Your task to perform on an android device: Go to privacy settings Image 0: 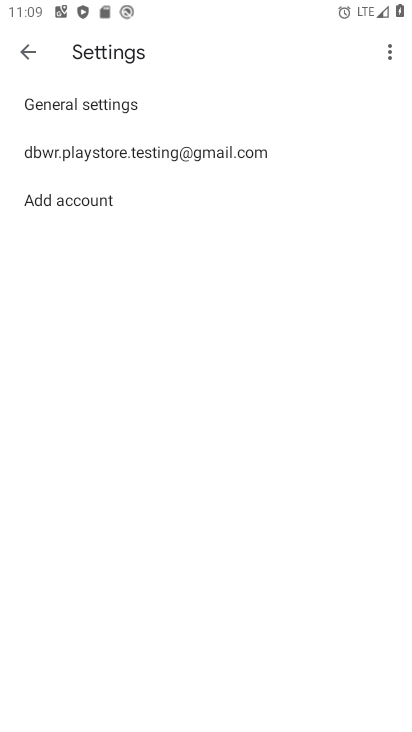
Step 0: press home button
Your task to perform on an android device: Go to privacy settings Image 1: 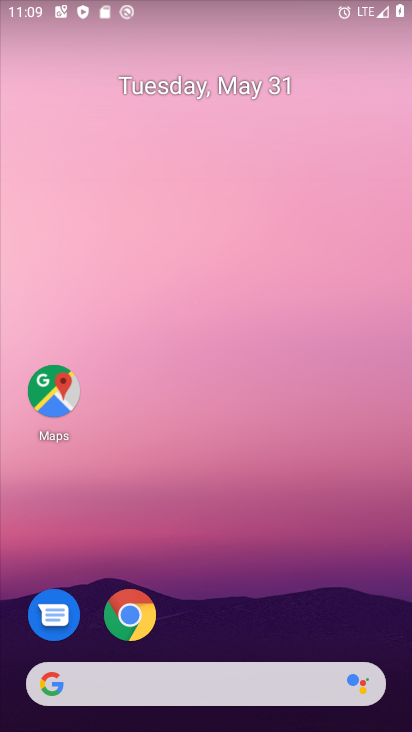
Step 1: drag from (306, 576) to (271, 69)
Your task to perform on an android device: Go to privacy settings Image 2: 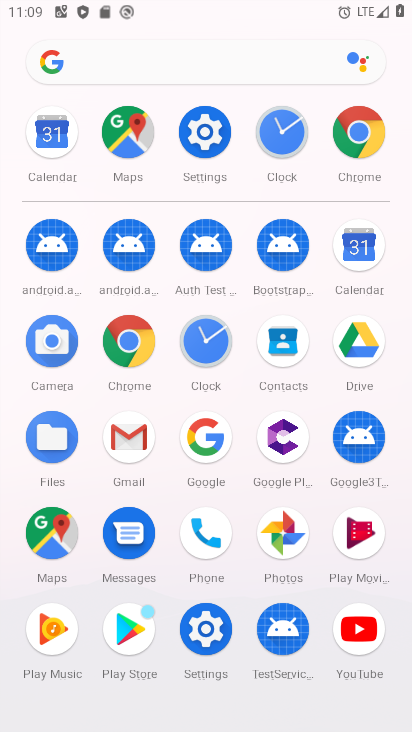
Step 2: click (168, 144)
Your task to perform on an android device: Go to privacy settings Image 3: 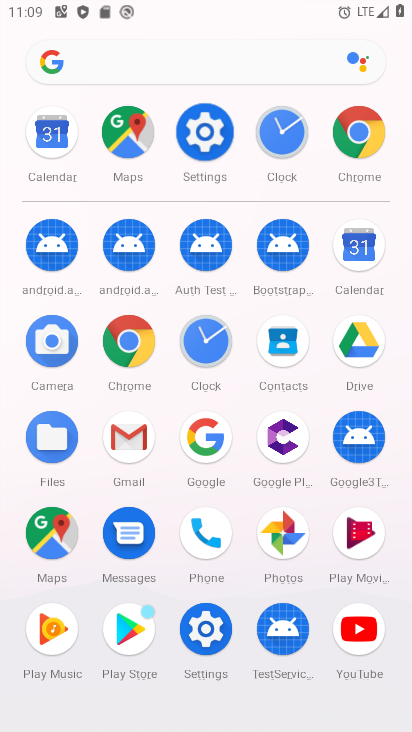
Step 3: click (198, 132)
Your task to perform on an android device: Go to privacy settings Image 4: 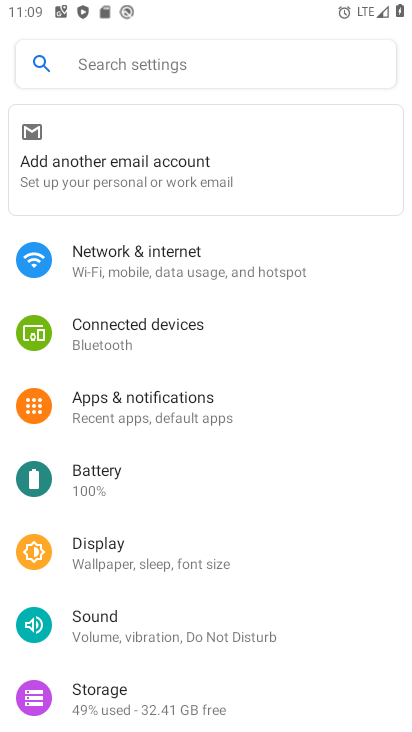
Step 4: drag from (182, 657) to (206, 240)
Your task to perform on an android device: Go to privacy settings Image 5: 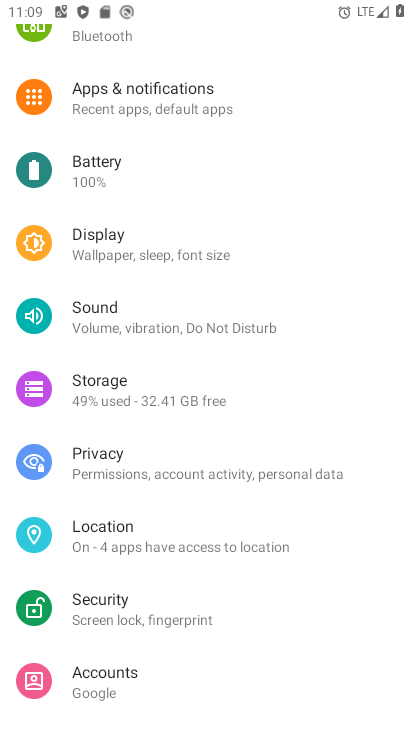
Step 5: click (149, 470)
Your task to perform on an android device: Go to privacy settings Image 6: 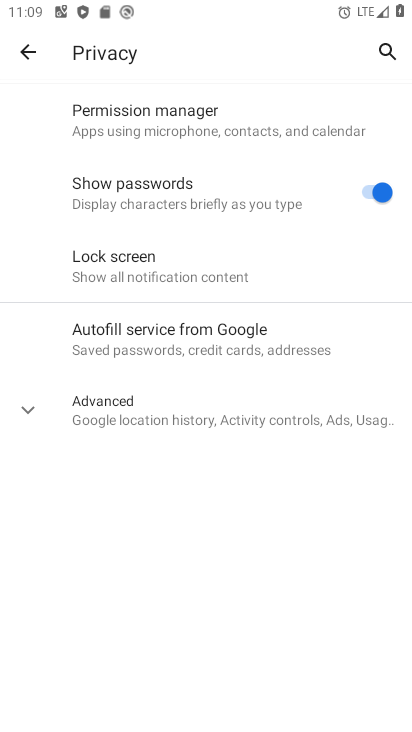
Step 6: task complete